Your task to perform on an android device: allow notifications from all sites in the chrome app Image 0: 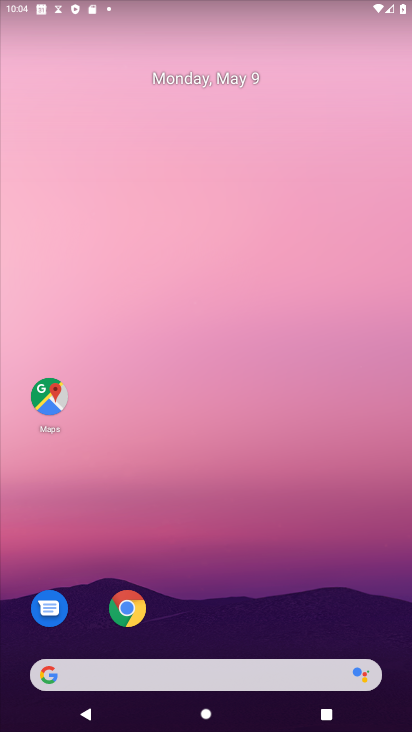
Step 0: drag from (206, 335) to (257, 25)
Your task to perform on an android device: allow notifications from all sites in the chrome app Image 1: 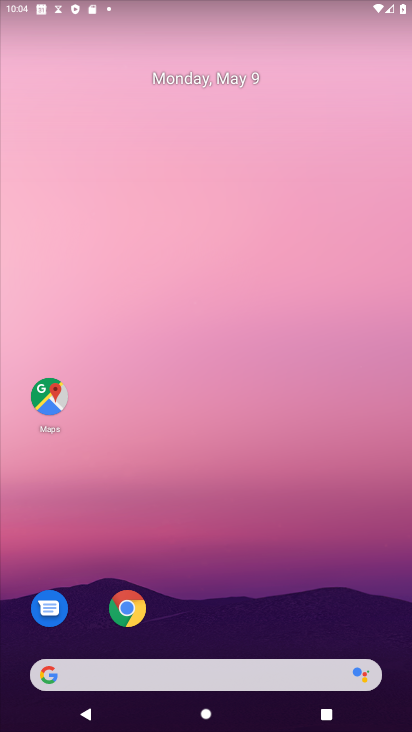
Step 1: click (133, 600)
Your task to perform on an android device: allow notifications from all sites in the chrome app Image 2: 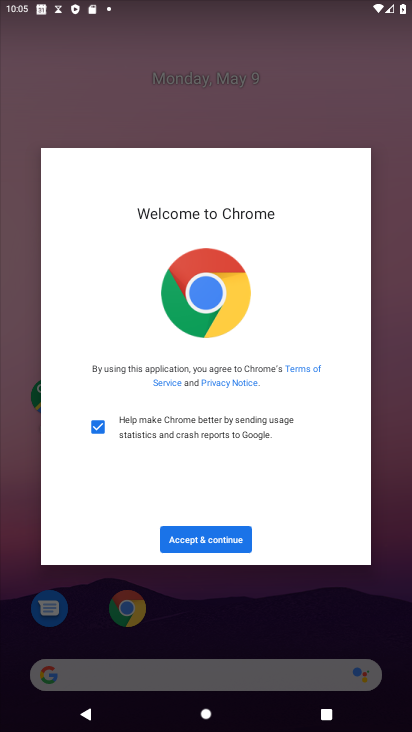
Step 2: click (175, 552)
Your task to perform on an android device: allow notifications from all sites in the chrome app Image 3: 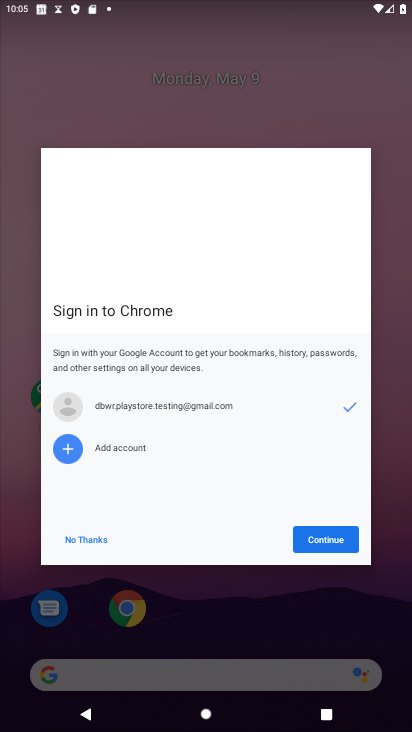
Step 3: click (326, 538)
Your task to perform on an android device: allow notifications from all sites in the chrome app Image 4: 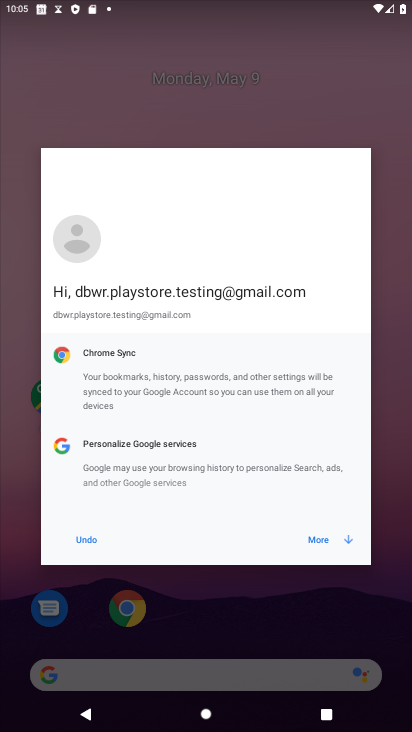
Step 4: click (326, 538)
Your task to perform on an android device: allow notifications from all sites in the chrome app Image 5: 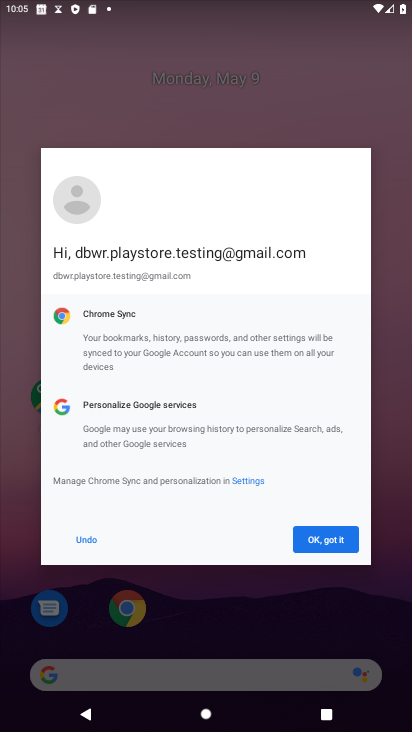
Step 5: click (326, 538)
Your task to perform on an android device: allow notifications from all sites in the chrome app Image 6: 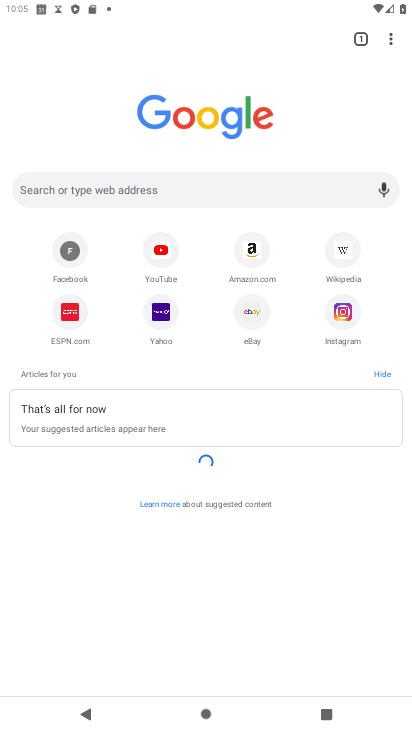
Step 6: click (386, 39)
Your task to perform on an android device: allow notifications from all sites in the chrome app Image 7: 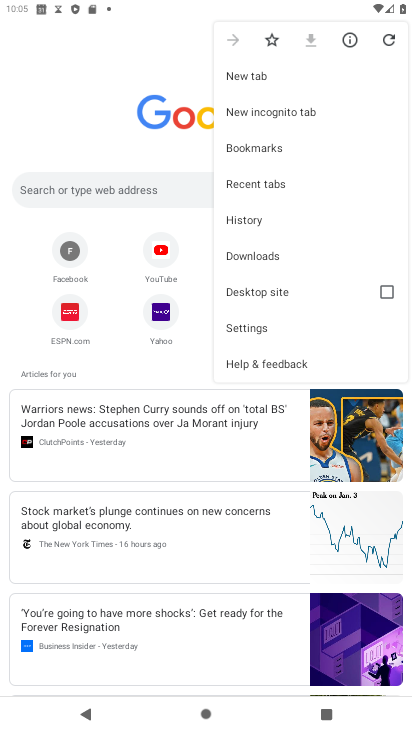
Step 7: click (260, 328)
Your task to perform on an android device: allow notifications from all sites in the chrome app Image 8: 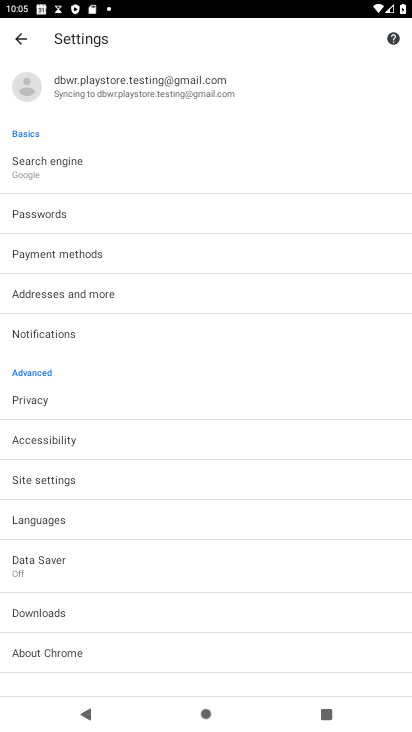
Step 8: click (95, 480)
Your task to perform on an android device: allow notifications from all sites in the chrome app Image 9: 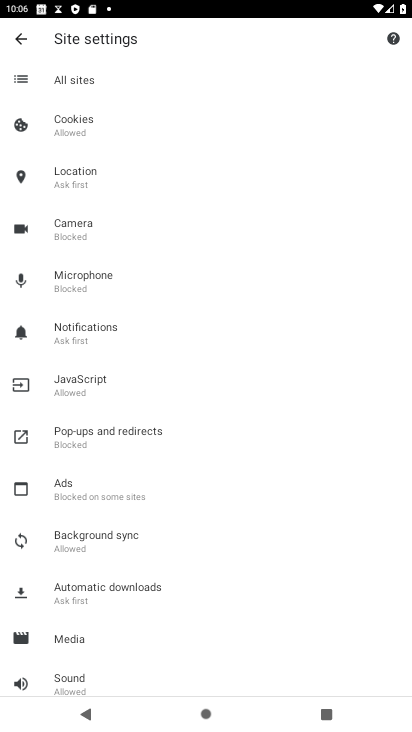
Step 9: click (100, 334)
Your task to perform on an android device: allow notifications from all sites in the chrome app Image 10: 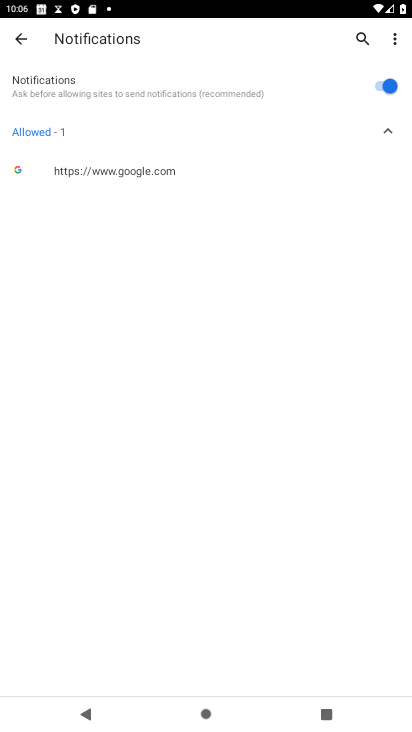
Step 10: task complete